Your task to perform on an android device: Open the map Image 0: 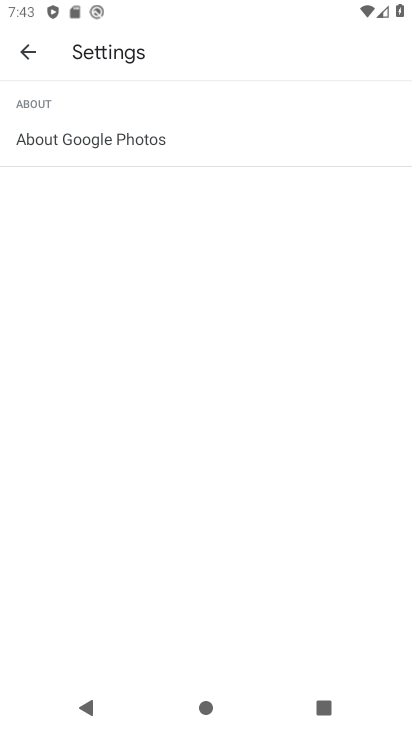
Step 0: press home button
Your task to perform on an android device: Open the map Image 1: 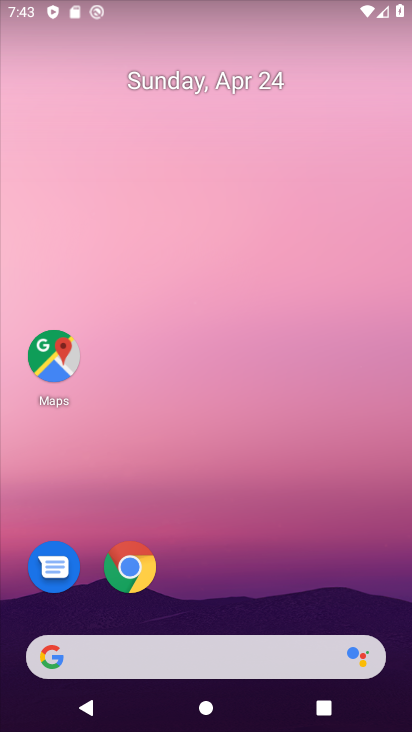
Step 1: click (53, 366)
Your task to perform on an android device: Open the map Image 2: 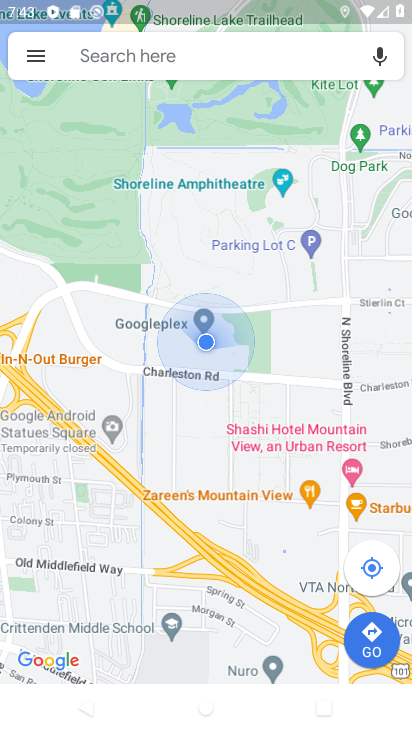
Step 2: task complete